Your task to perform on an android device: move an email to a new category in the gmail app Image 0: 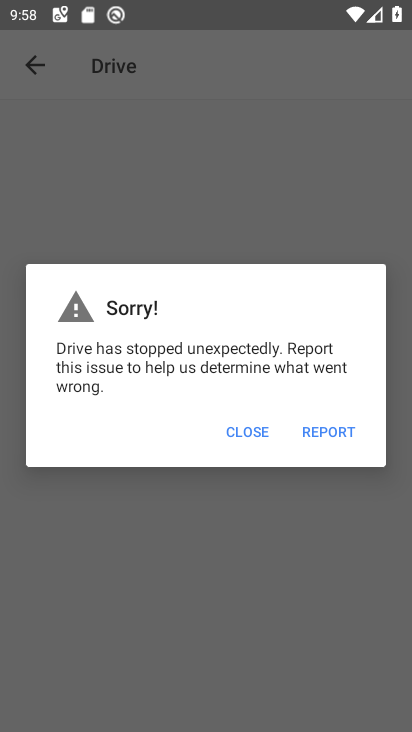
Step 0: press home button
Your task to perform on an android device: move an email to a new category in the gmail app Image 1: 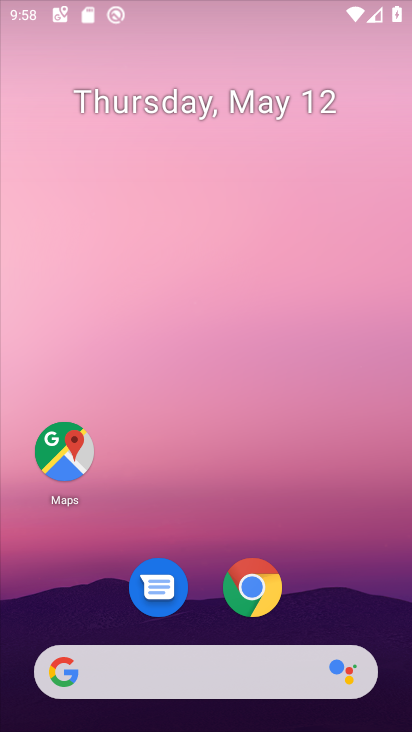
Step 1: drag from (390, 634) to (278, 92)
Your task to perform on an android device: move an email to a new category in the gmail app Image 2: 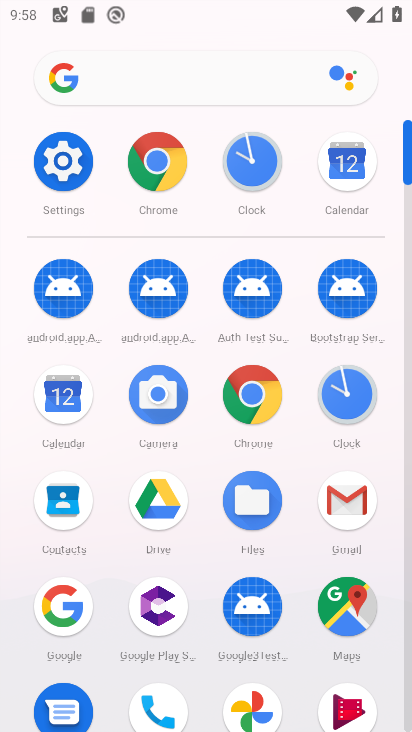
Step 2: click (350, 515)
Your task to perform on an android device: move an email to a new category in the gmail app Image 3: 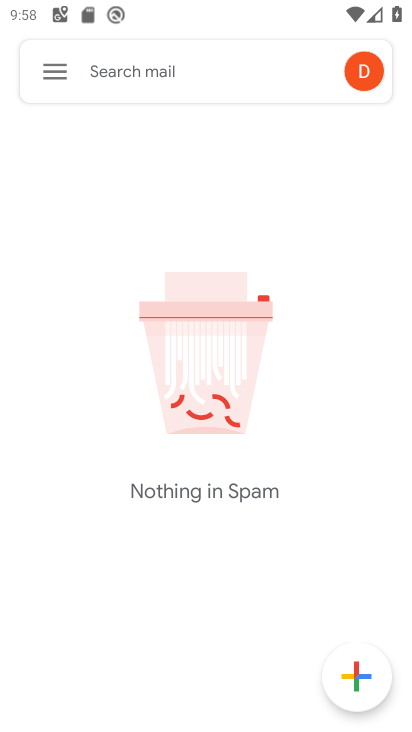
Step 3: task complete